Your task to perform on an android device: turn off airplane mode Image 0: 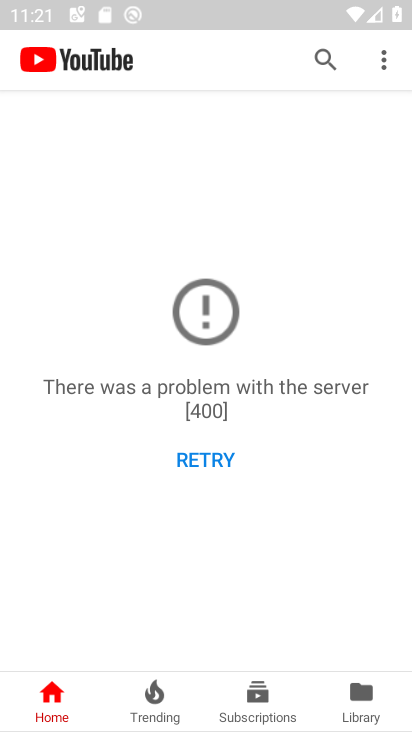
Step 0: press home button
Your task to perform on an android device: turn off airplane mode Image 1: 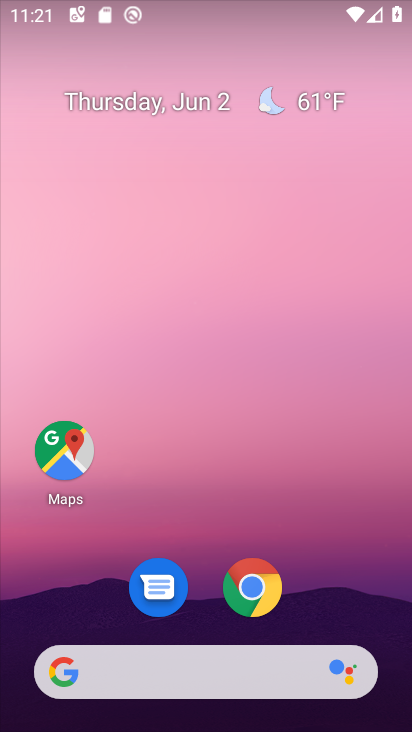
Step 1: drag from (217, 480) to (241, 2)
Your task to perform on an android device: turn off airplane mode Image 2: 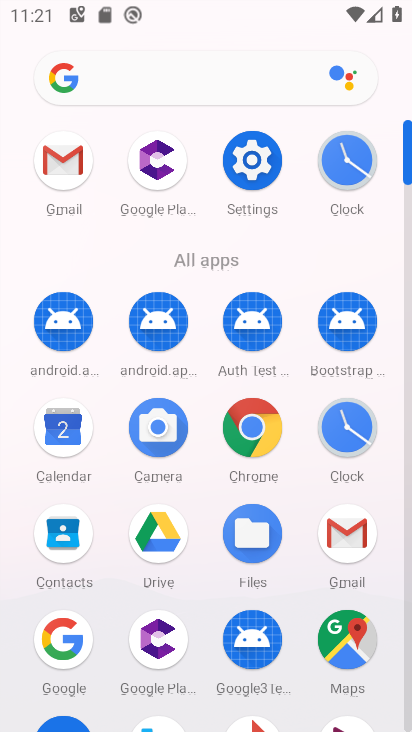
Step 2: click (251, 169)
Your task to perform on an android device: turn off airplane mode Image 3: 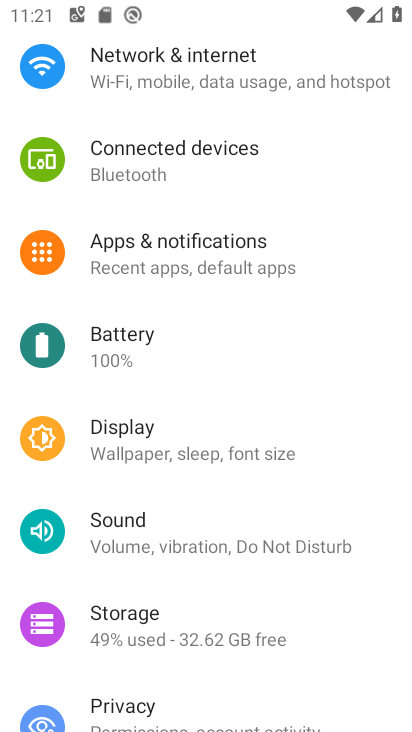
Step 3: drag from (256, 180) to (348, 579)
Your task to perform on an android device: turn off airplane mode Image 4: 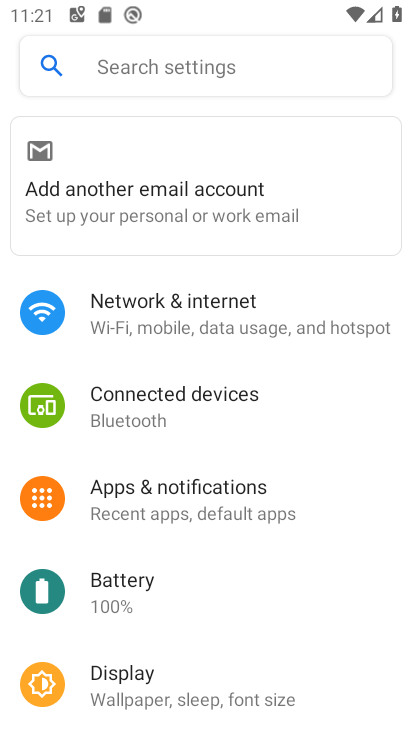
Step 4: click (221, 321)
Your task to perform on an android device: turn off airplane mode Image 5: 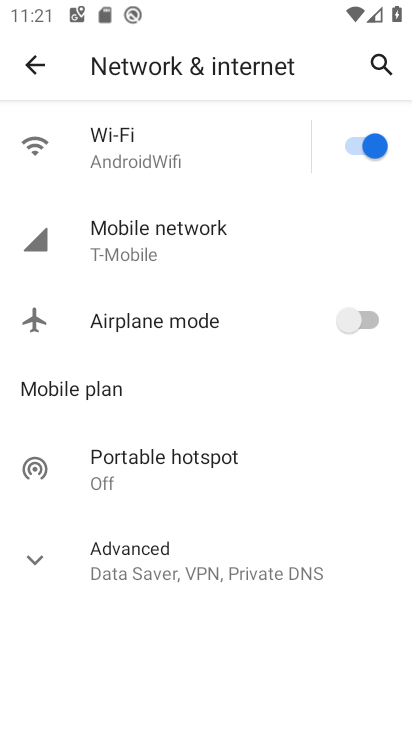
Step 5: task complete